Your task to perform on an android device: turn on location history Image 0: 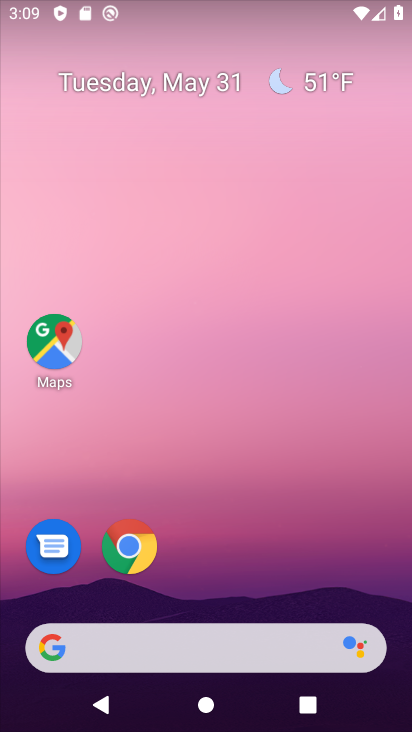
Step 0: drag from (191, 587) to (206, 199)
Your task to perform on an android device: turn on location history Image 1: 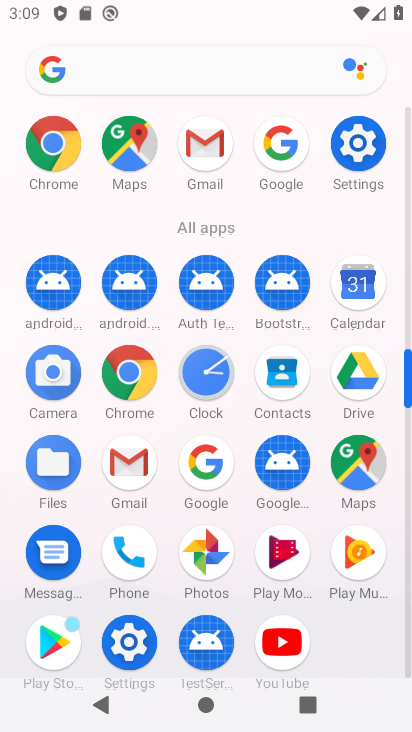
Step 1: click (365, 147)
Your task to perform on an android device: turn on location history Image 2: 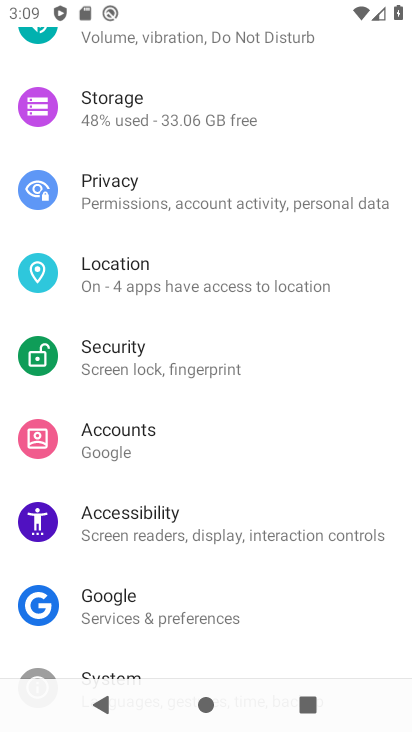
Step 2: drag from (189, 572) to (193, 154)
Your task to perform on an android device: turn on location history Image 3: 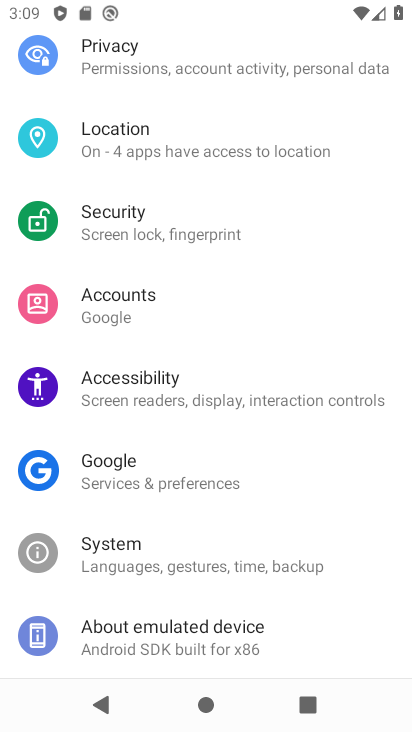
Step 3: click (116, 146)
Your task to perform on an android device: turn on location history Image 4: 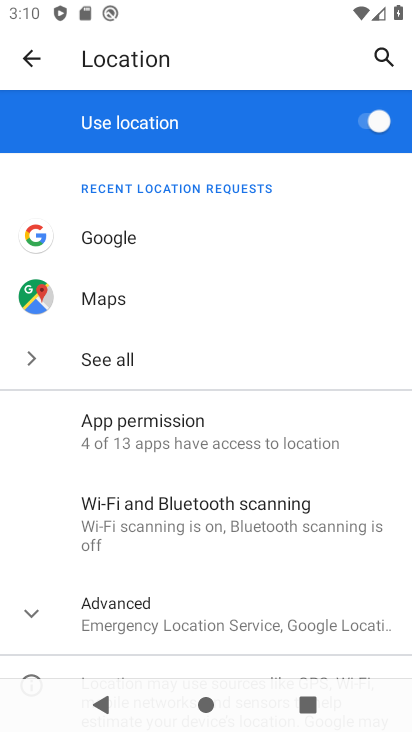
Step 4: drag from (110, 602) to (128, 147)
Your task to perform on an android device: turn on location history Image 5: 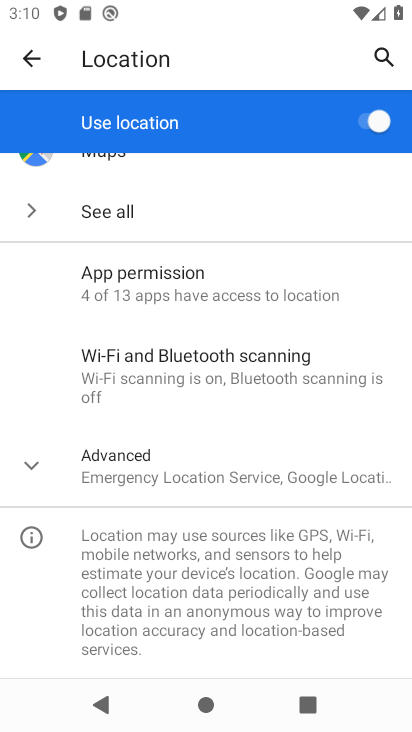
Step 5: click (89, 474)
Your task to perform on an android device: turn on location history Image 6: 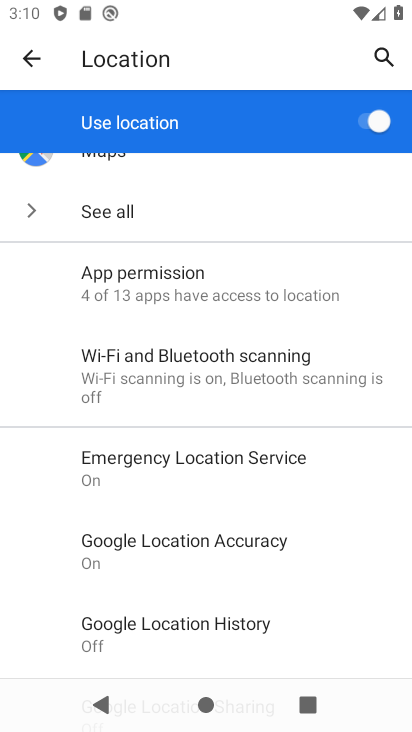
Step 6: click (170, 645)
Your task to perform on an android device: turn on location history Image 7: 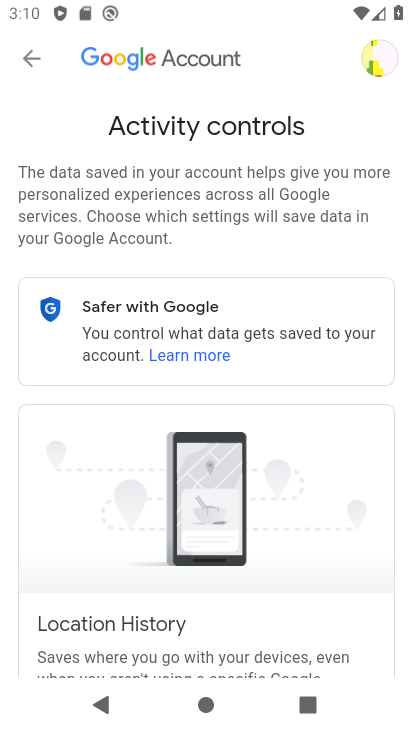
Step 7: drag from (220, 602) to (219, 193)
Your task to perform on an android device: turn on location history Image 8: 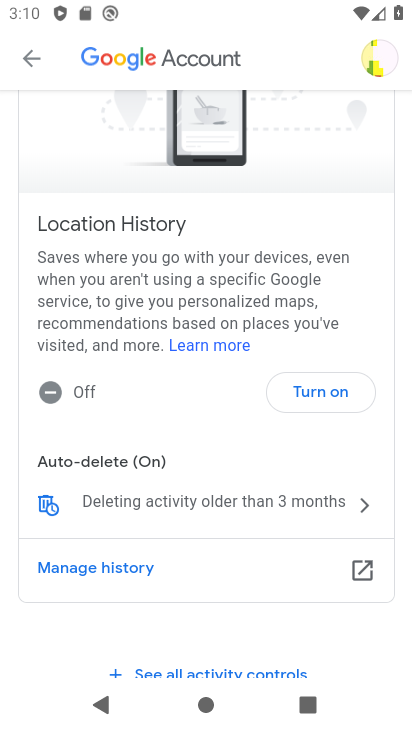
Step 8: click (314, 396)
Your task to perform on an android device: turn on location history Image 9: 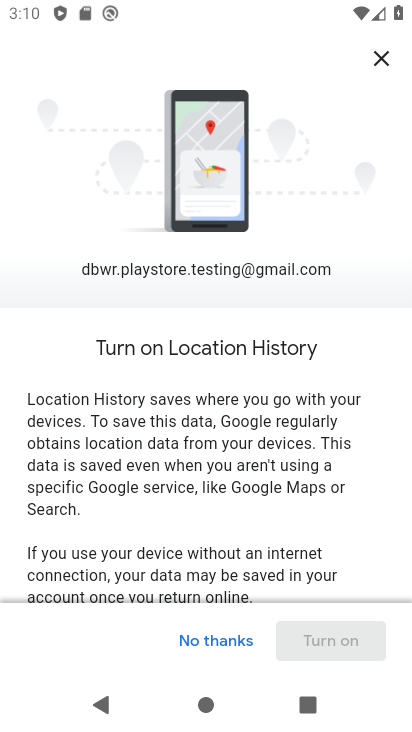
Step 9: drag from (233, 522) to (205, 216)
Your task to perform on an android device: turn on location history Image 10: 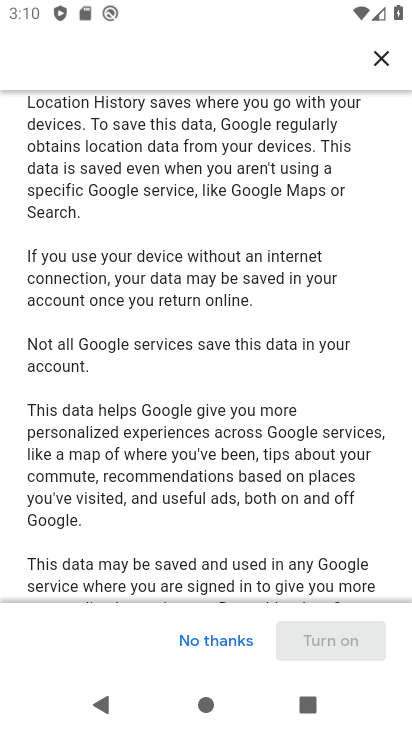
Step 10: drag from (199, 515) to (208, 200)
Your task to perform on an android device: turn on location history Image 11: 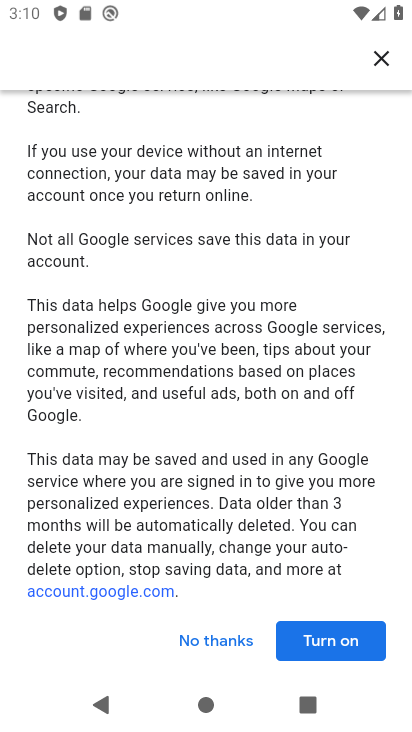
Step 11: click (330, 651)
Your task to perform on an android device: turn on location history Image 12: 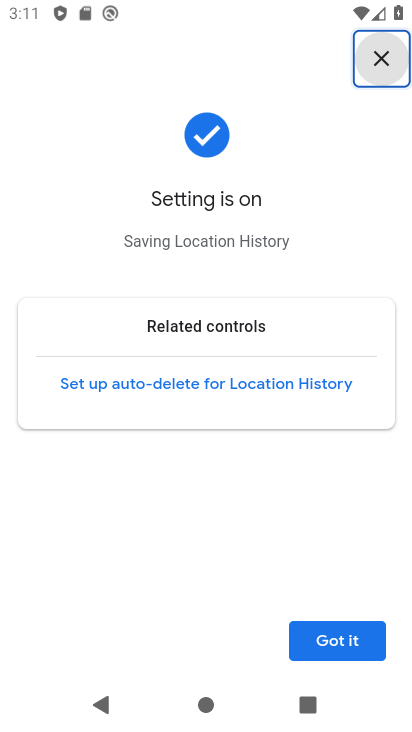
Step 12: click (330, 651)
Your task to perform on an android device: turn on location history Image 13: 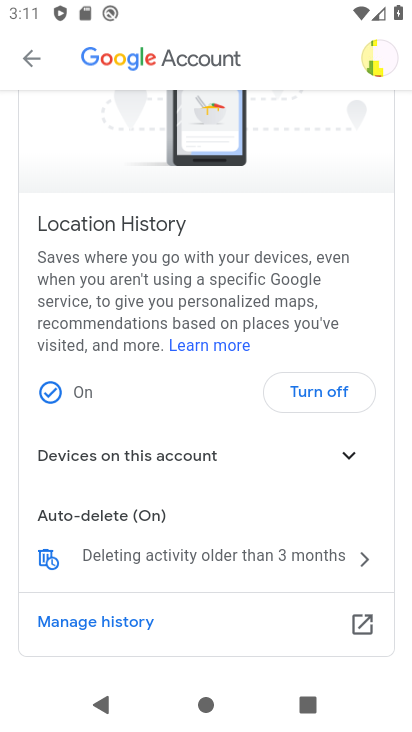
Step 13: task complete